Your task to perform on an android device: turn off airplane mode Image 0: 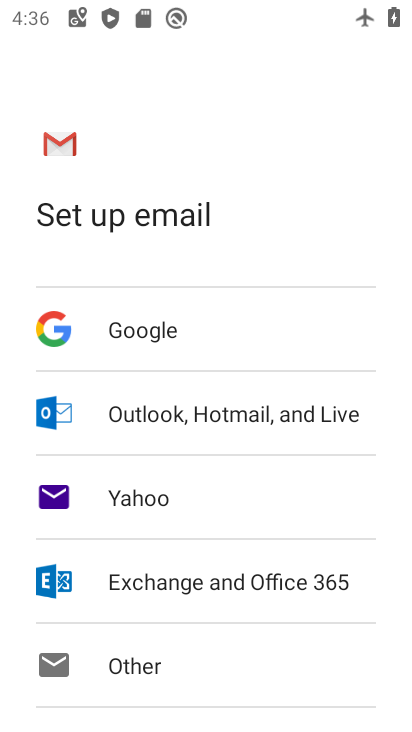
Step 0: press home button
Your task to perform on an android device: turn off airplane mode Image 1: 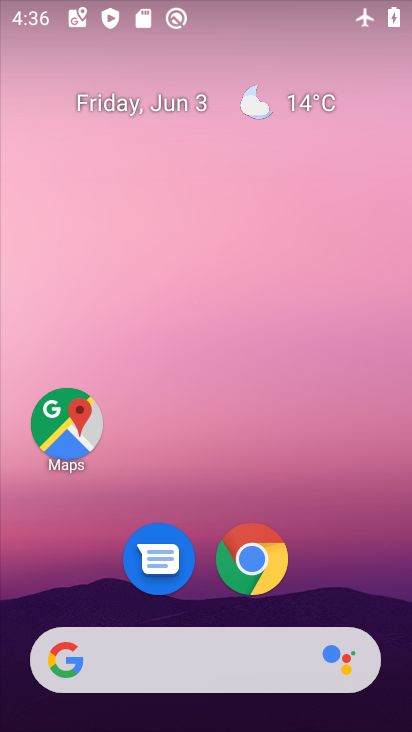
Step 1: drag from (364, 7) to (319, 474)
Your task to perform on an android device: turn off airplane mode Image 2: 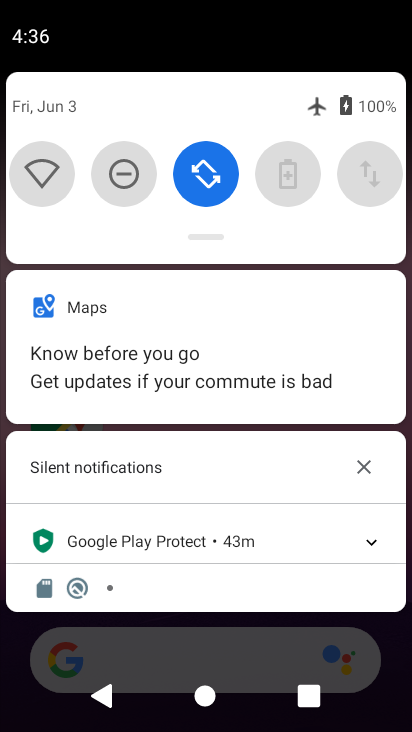
Step 2: drag from (370, 194) to (90, 161)
Your task to perform on an android device: turn off airplane mode Image 3: 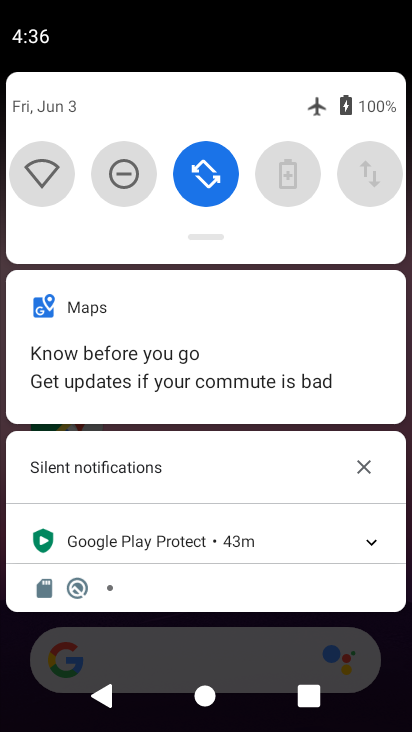
Step 3: drag from (266, 225) to (246, 577)
Your task to perform on an android device: turn off airplane mode Image 4: 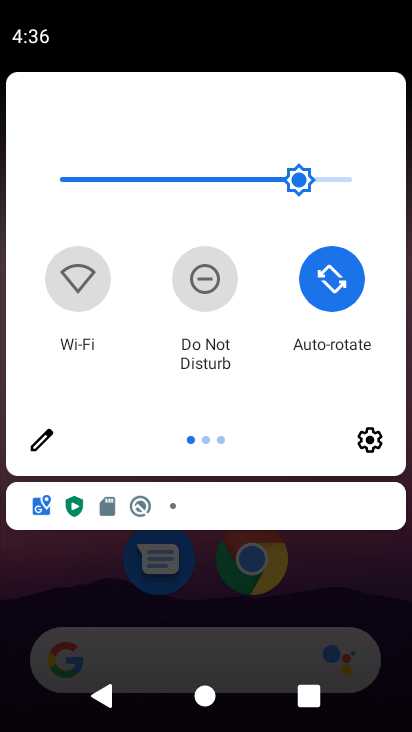
Step 4: drag from (373, 280) to (27, 261)
Your task to perform on an android device: turn off airplane mode Image 5: 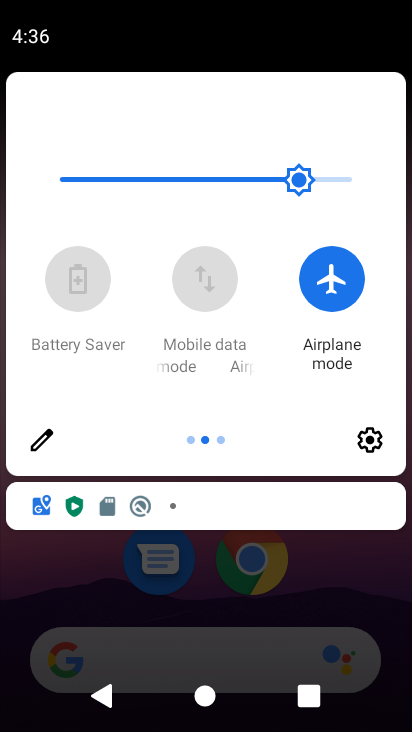
Step 5: click (337, 280)
Your task to perform on an android device: turn off airplane mode Image 6: 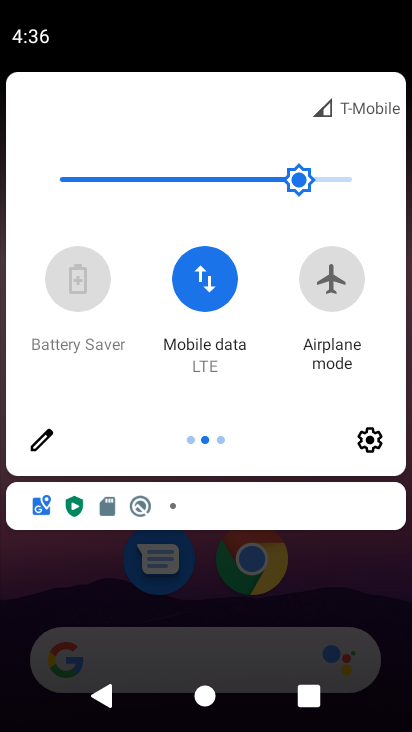
Step 6: task complete